Your task to perform on an android device: Open calendar and show me the fourth week of next month Image 0: 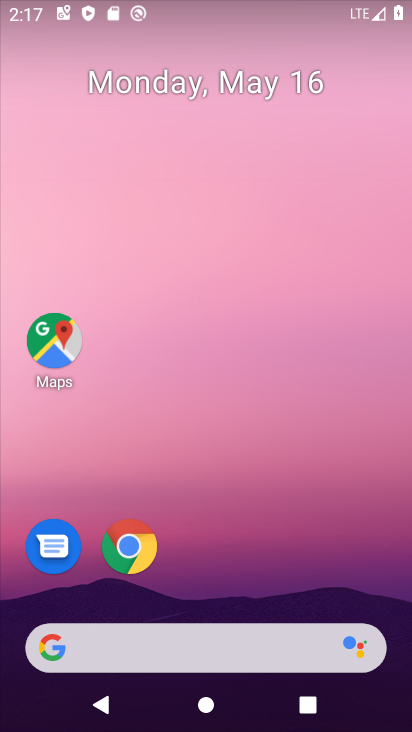
Step 0: drag from (216, 682) to (333, 204)
Your task to perform on an android device: Open calendar and show me the fourth week of next month Image 1: 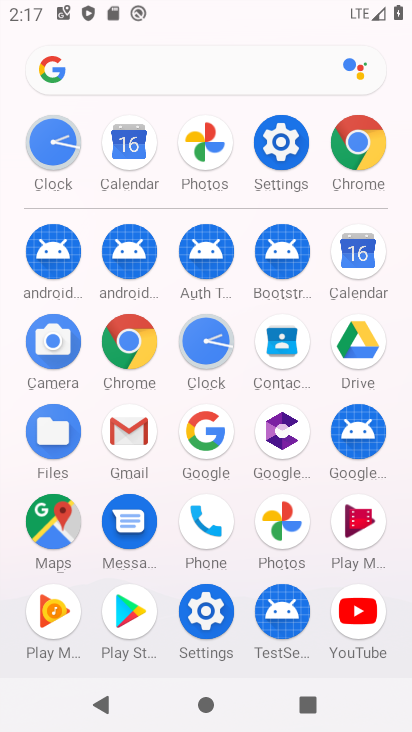
Step 1: click (372, 251)
Your task to perform on an android device: Open calendar and show me the fourth week of next month Image 2: 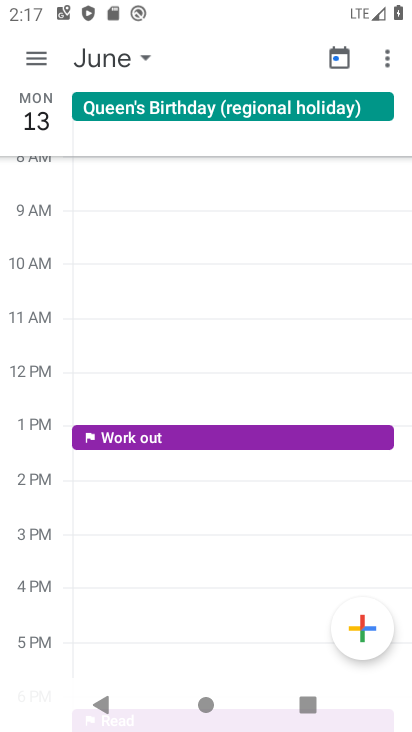
Step 2: click (35, 56)
Your task to perform on an android device: Open calendar and show me the fourth week of next month Image 3: 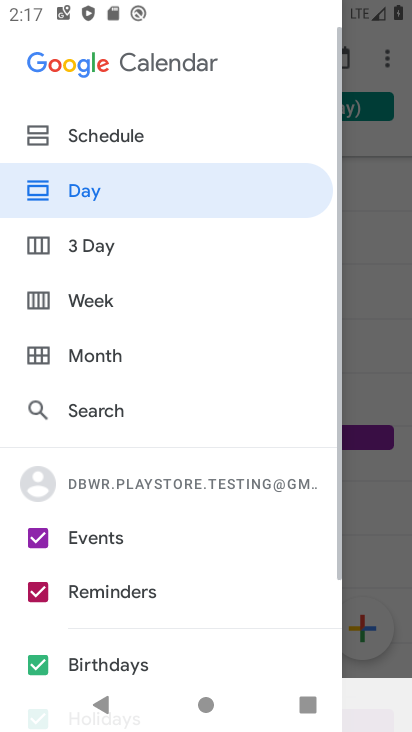
Step 3: click (99, 350)
Your task to perform on an android device: Open calendar and show me the fourth week of next month Image 4: 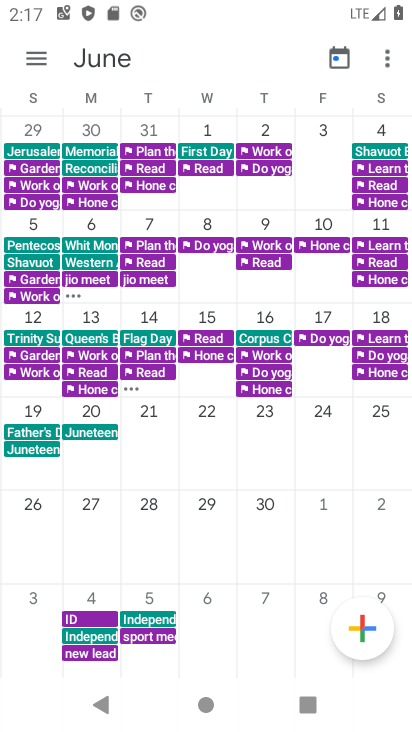
Step 4: click (90, 406)
Your task to perform on an android device: Open calendar and show me the fourth week of next month Image 5: 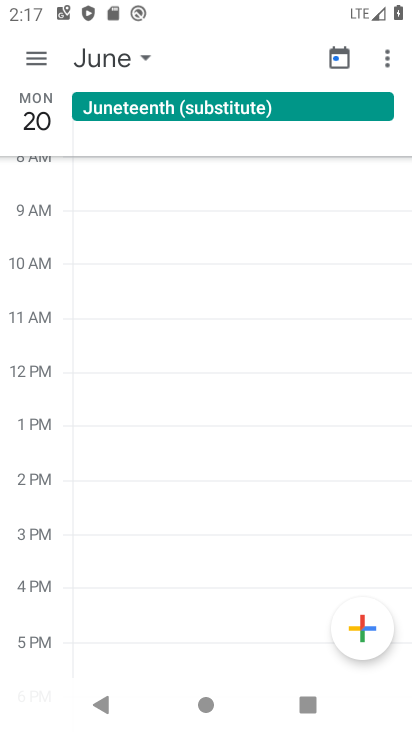
Step 5: task complete